Your task to perform on an android device: change your default location settings in chrome Image 0: 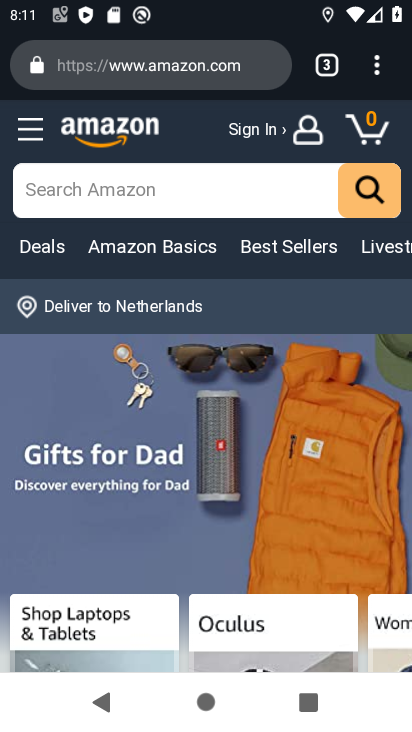
Step 0: click (375, 64)
Your task to perform on an android device: change your default location settings in chrome Image 1: 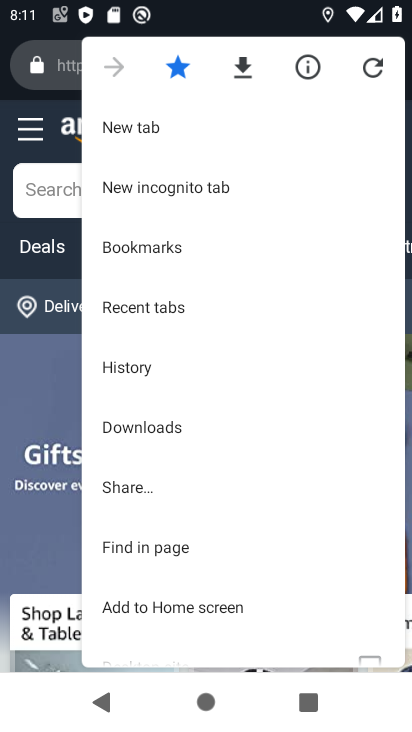
Step 1: drag from (196, 551) to (174, 262)
Your task to perform on an android device: change your default location settings in chrome Image 2: 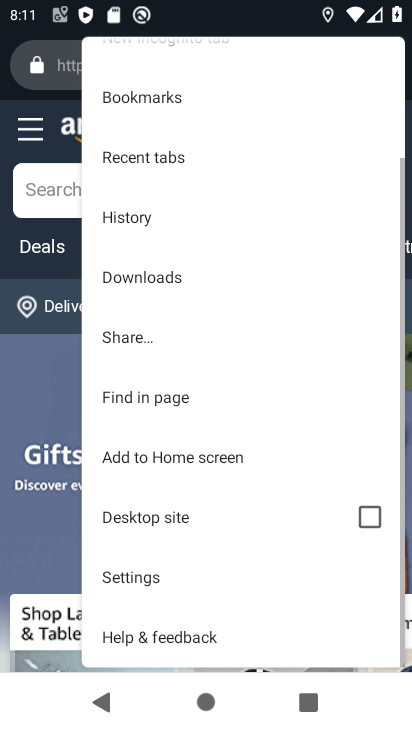
Step 2: click (167, 589)
Your task to perform on an android device: change your default location settings in chrome Image 3: 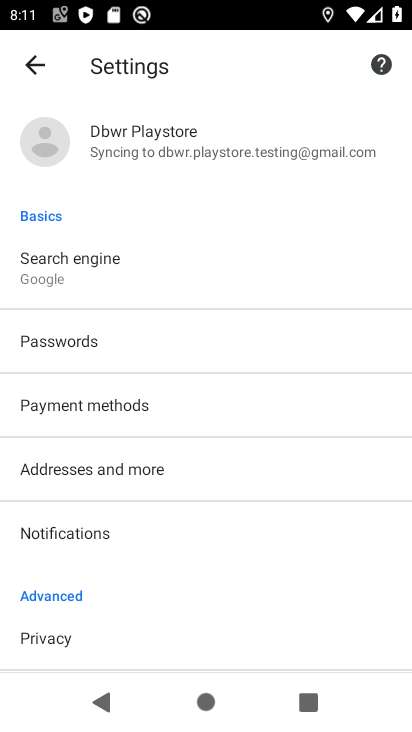
Step 3: drag from (185, 508) to (207, 227)
Your task to perform on an android device: change your default location settings in chrome Image 4: 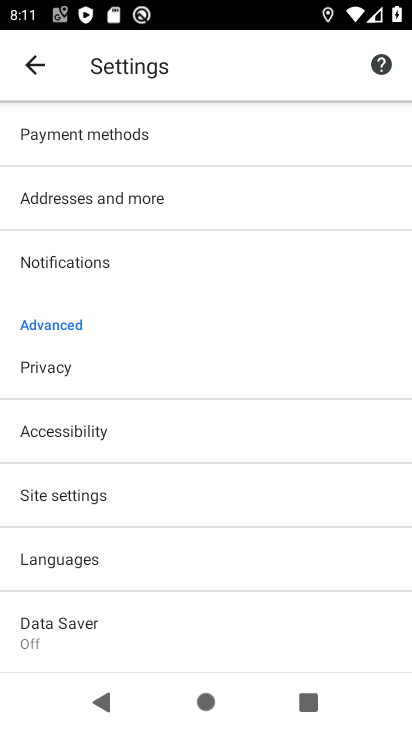
Step 4: click (85, 498)
Your task to perform on an android device: change your default location settings in chrome Image 5: 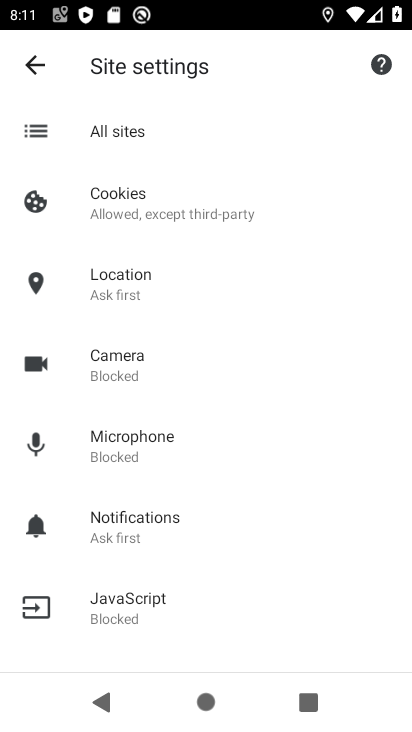
Step 5: click (160, 313)
Your task to perform on an android device: change your default location settings in chrome Image 6: 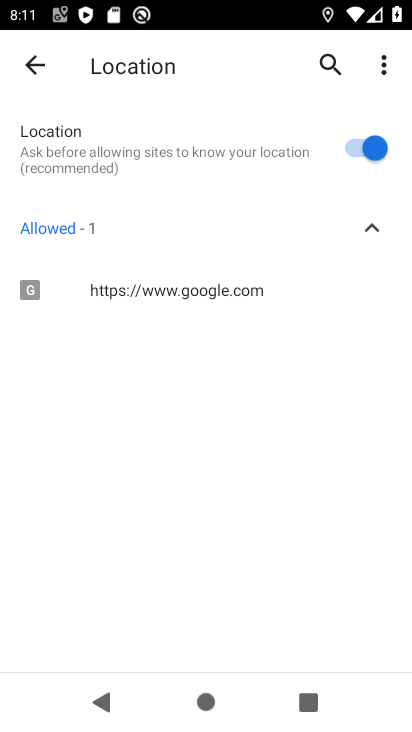
Step 6: click (364, 146)
Your task to perform on an android device: change your default location settings in chrome Image 7: 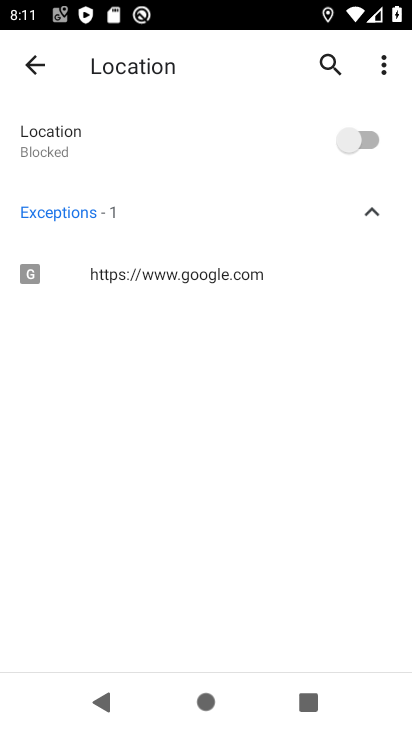
Step 7: task complete